Your task to perform on an android device: Add "logitech g933" to the cart on bestbuy, then select checkout. Image 0: 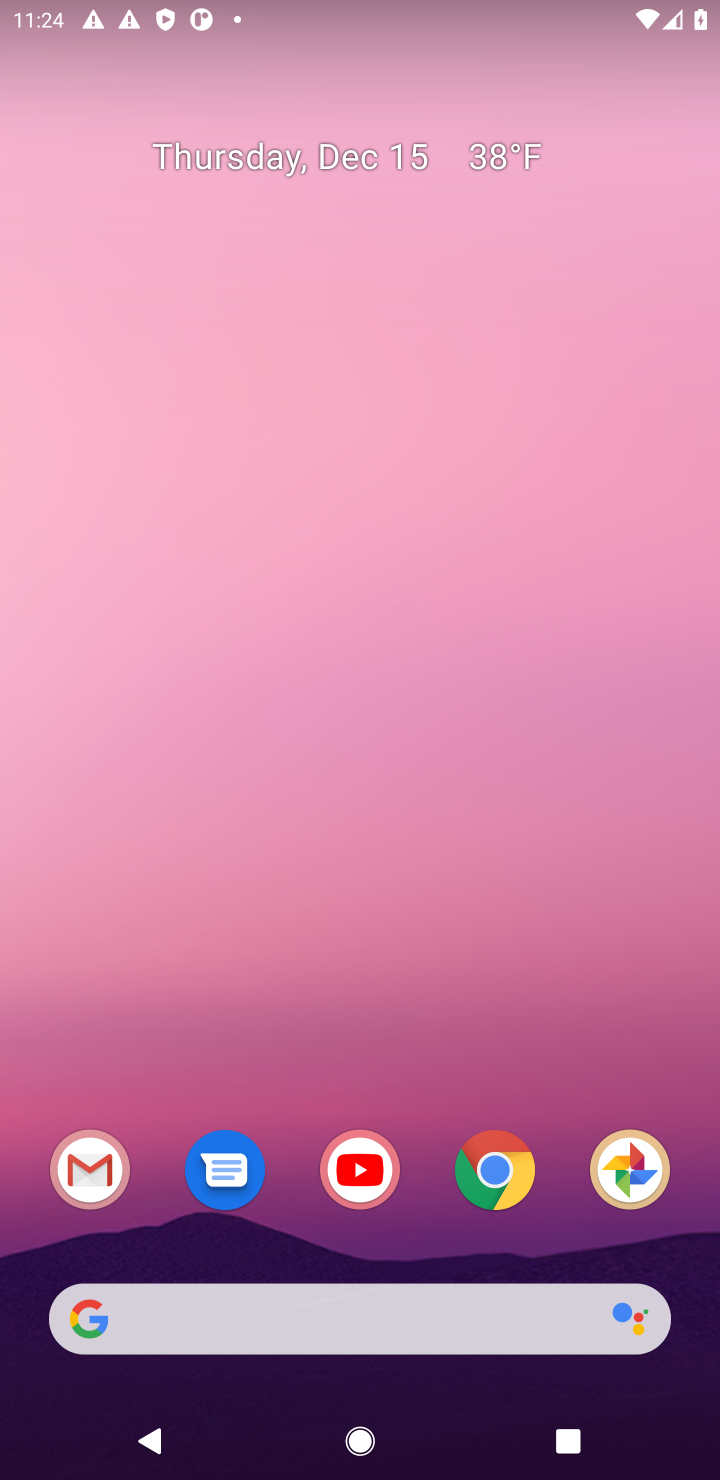
Step 0: click (512, 1182)
Your task to perform on an android device: Add "logitech g933" to the cart on bestbuy, then select checkout. Image 1: 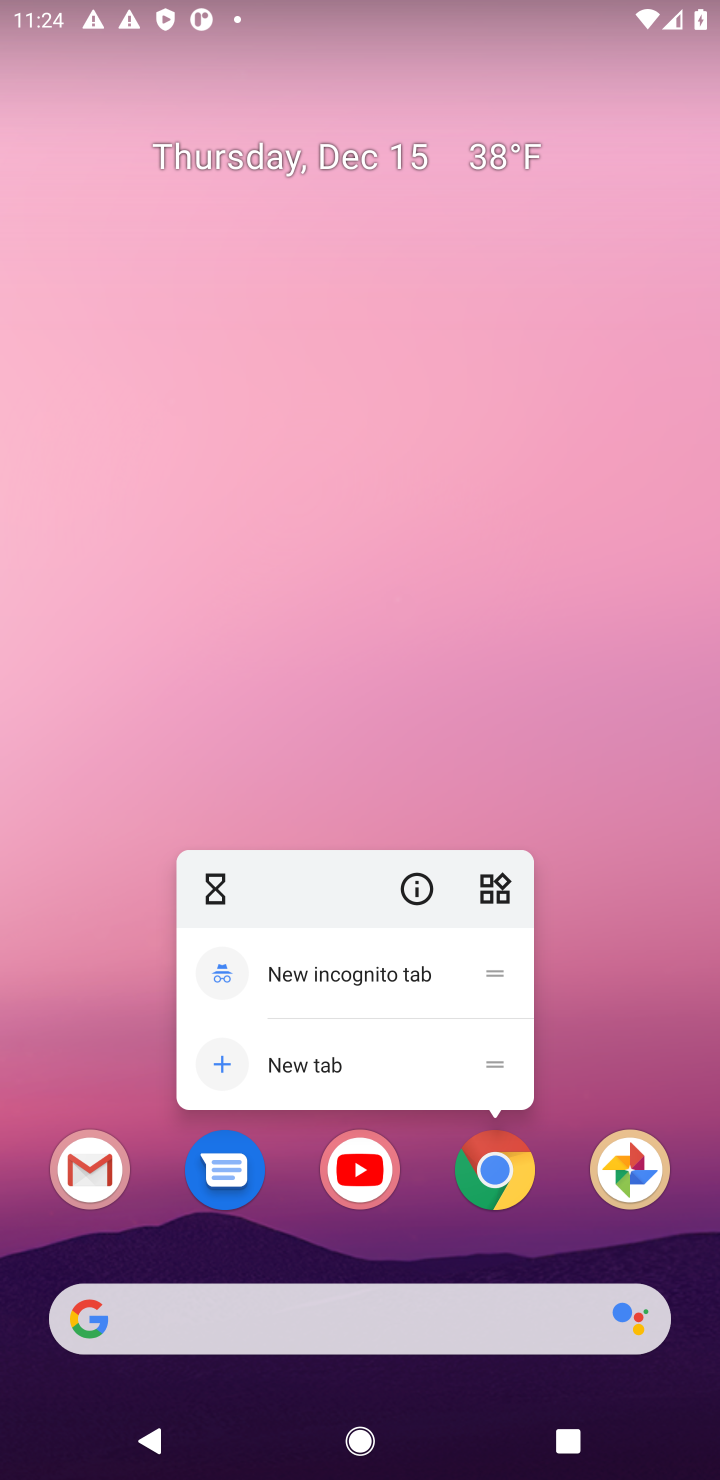
Step 1: click (495, 1171)
Your task to perform on an android device: Add "logitech g933" to the cart on bestbuy, then select checkout. Image 2: 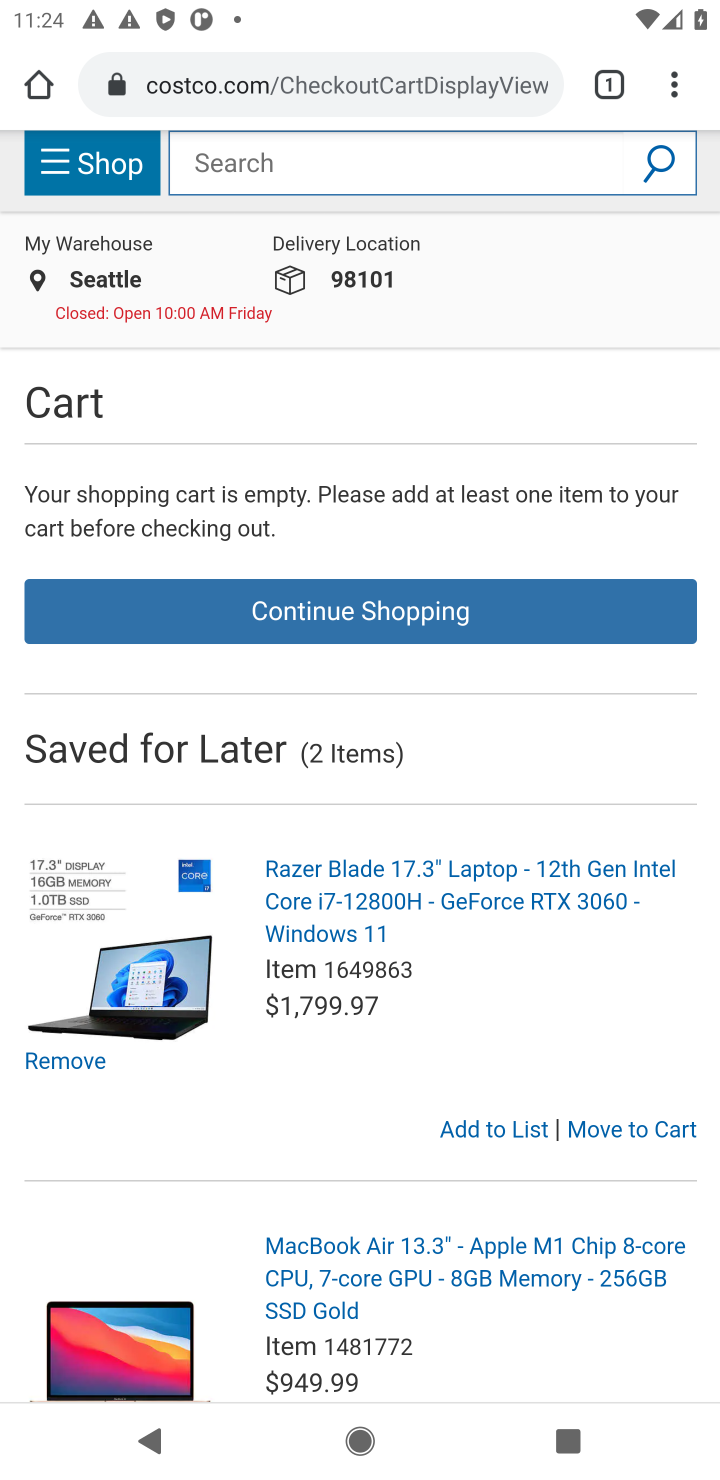
Step 2: click (269, 82)
Your task to perform on an android device: Add "logitech g933" to the cart on bestbuy, then select checkout. Image 3: 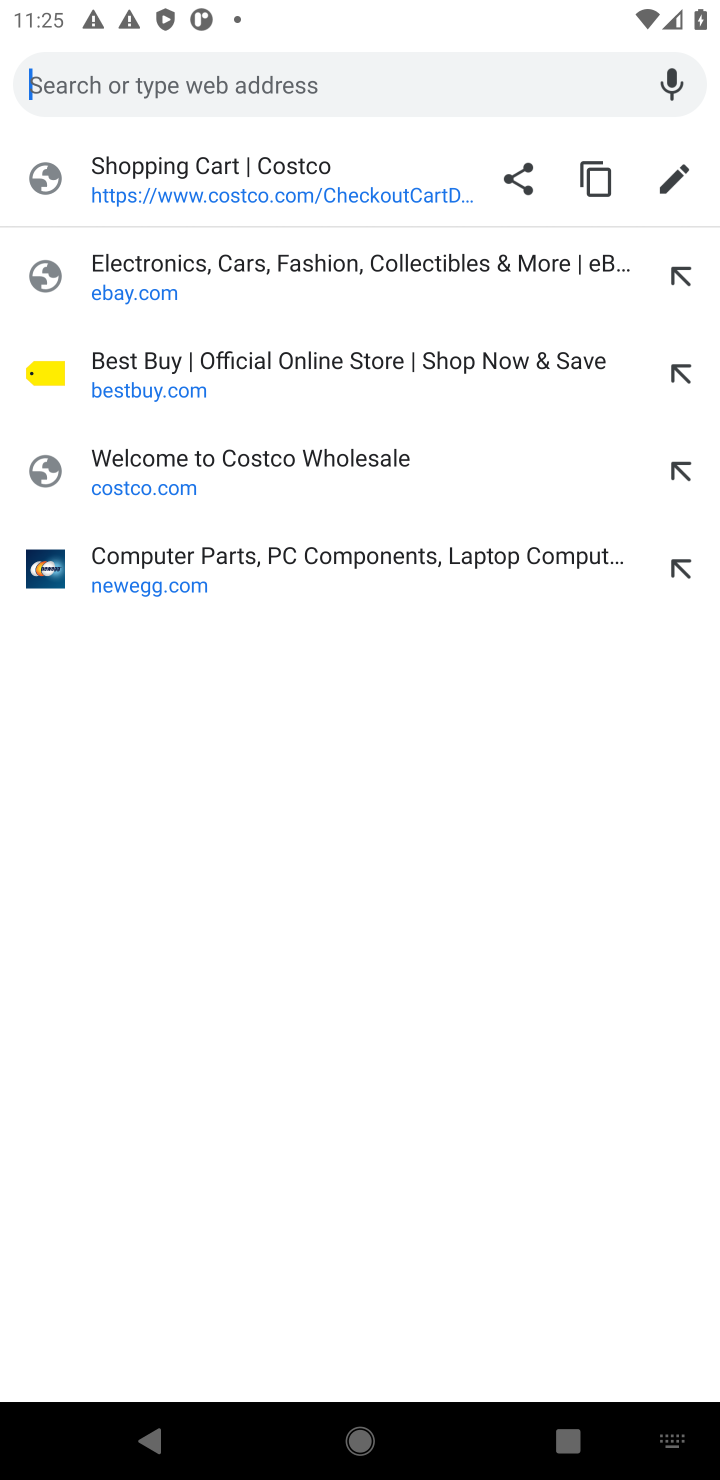
Step 3: click (96, 371)
Your task to perform on an android device: Add "logitech g933" to the cart on bestbuy, then select checkout. Image 4: 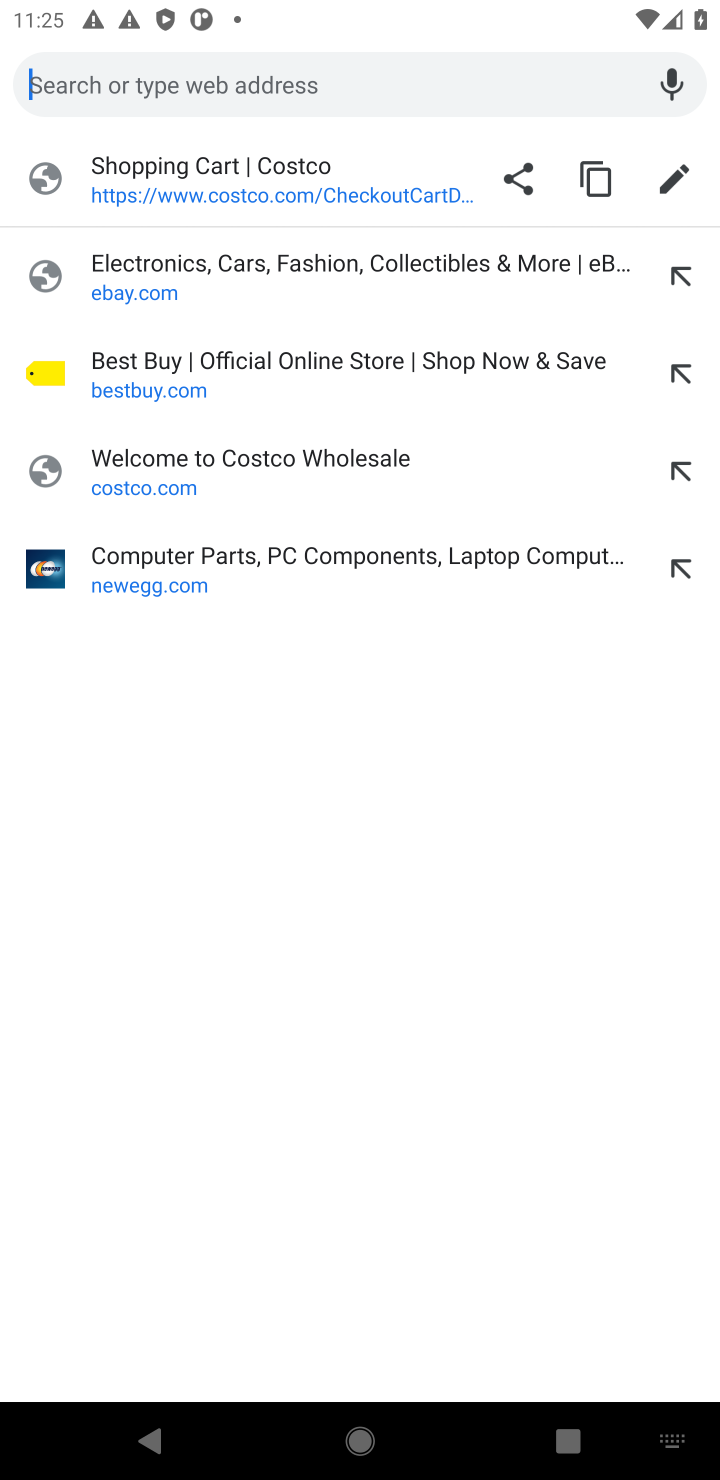
Step 4: click (118, 377)
Your task to perform on an android device: Add "logitech g933" to the cart on bestbuy, then select checkout. Image 5: 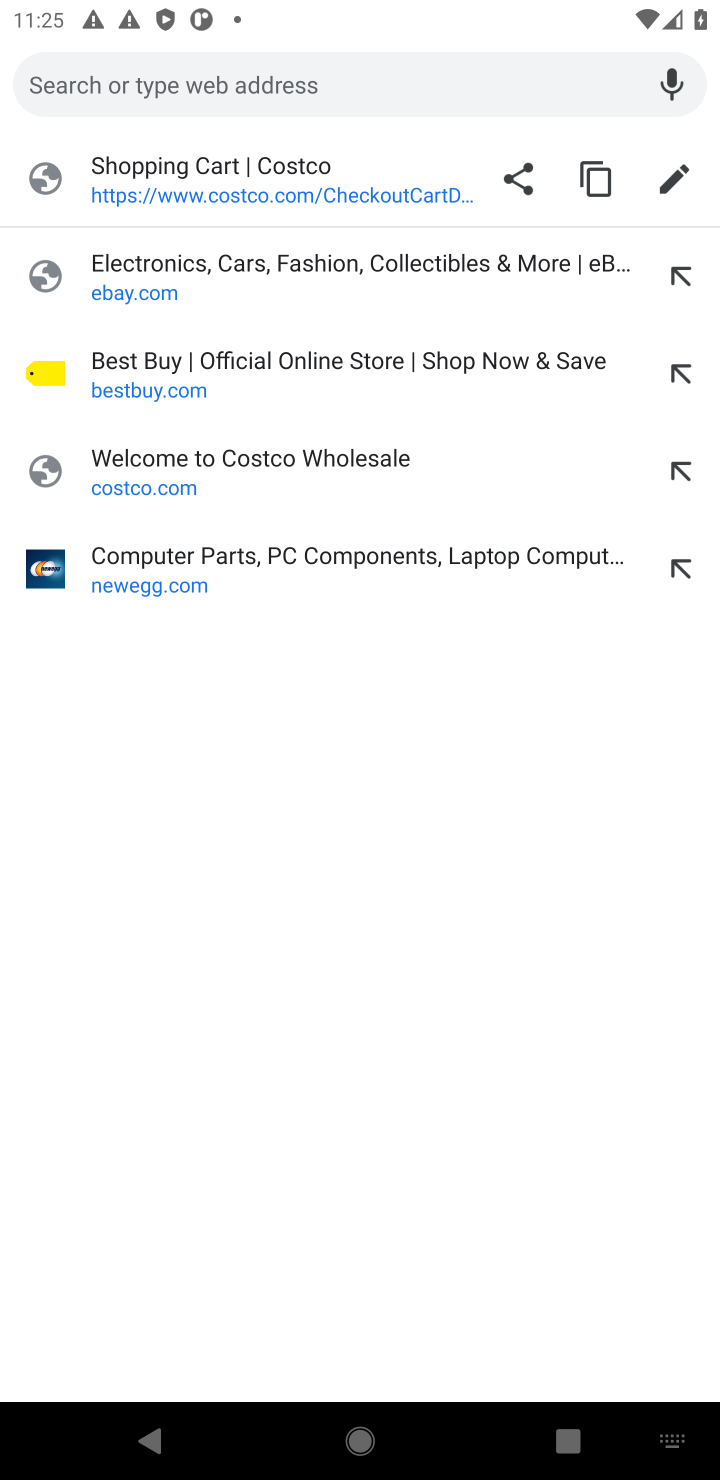
Step 5: click (118, 377)
Your task to perform on an android device: Add "logitech g933" to the cart on bestbuy, then select checkout. Image 6: 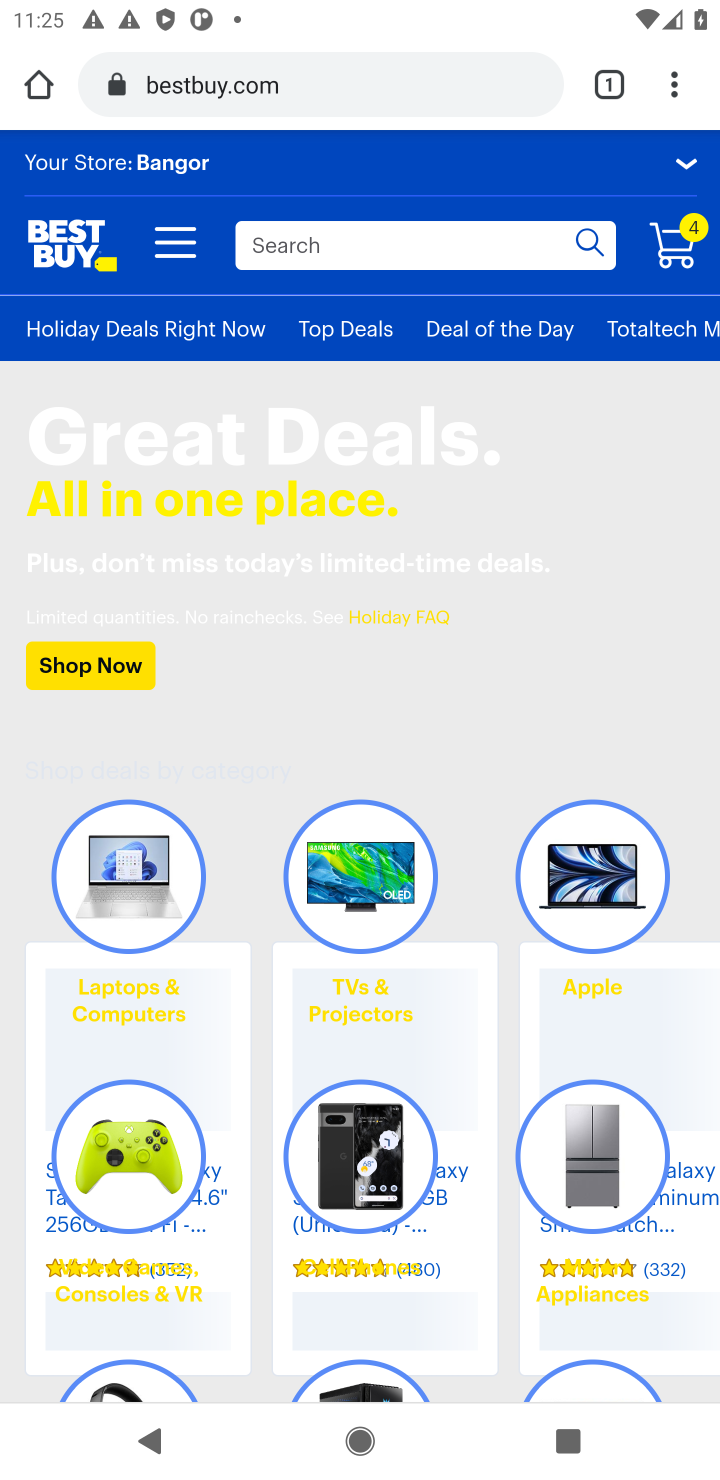
Step 6: click (303, 250)
Your task to perform on an android device: Add "logitech g933" to the cart on bestbuy, then select checkout. Image 7: 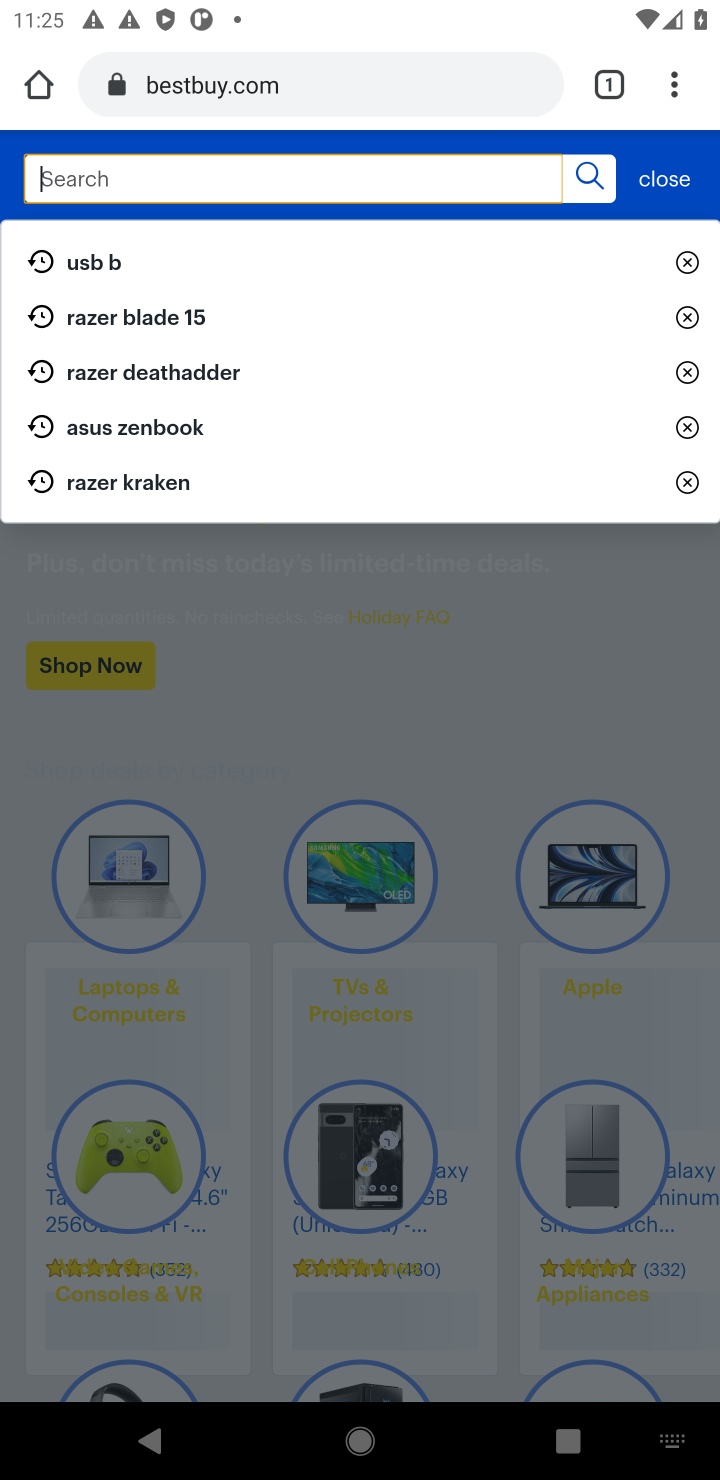
Step 7: type "logitech g933"
Your task to perform on an android device: Add "logitech g933" to the cart on bestbuy, then select checkout. Image 8: 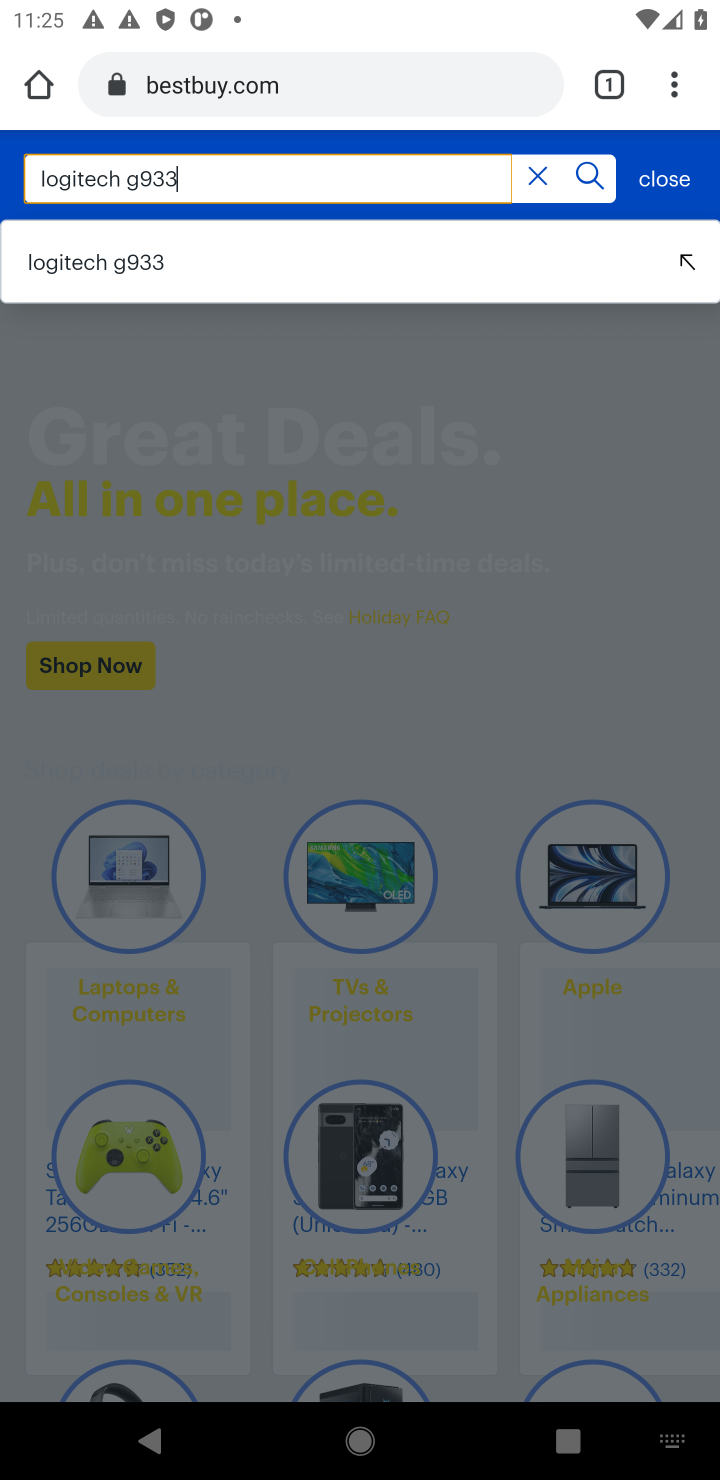
Step 8: click (91, 257)
Your task to perform on an android device: Add "logitech g933" to the cart on bestbuy, then select checkout. Image 9: 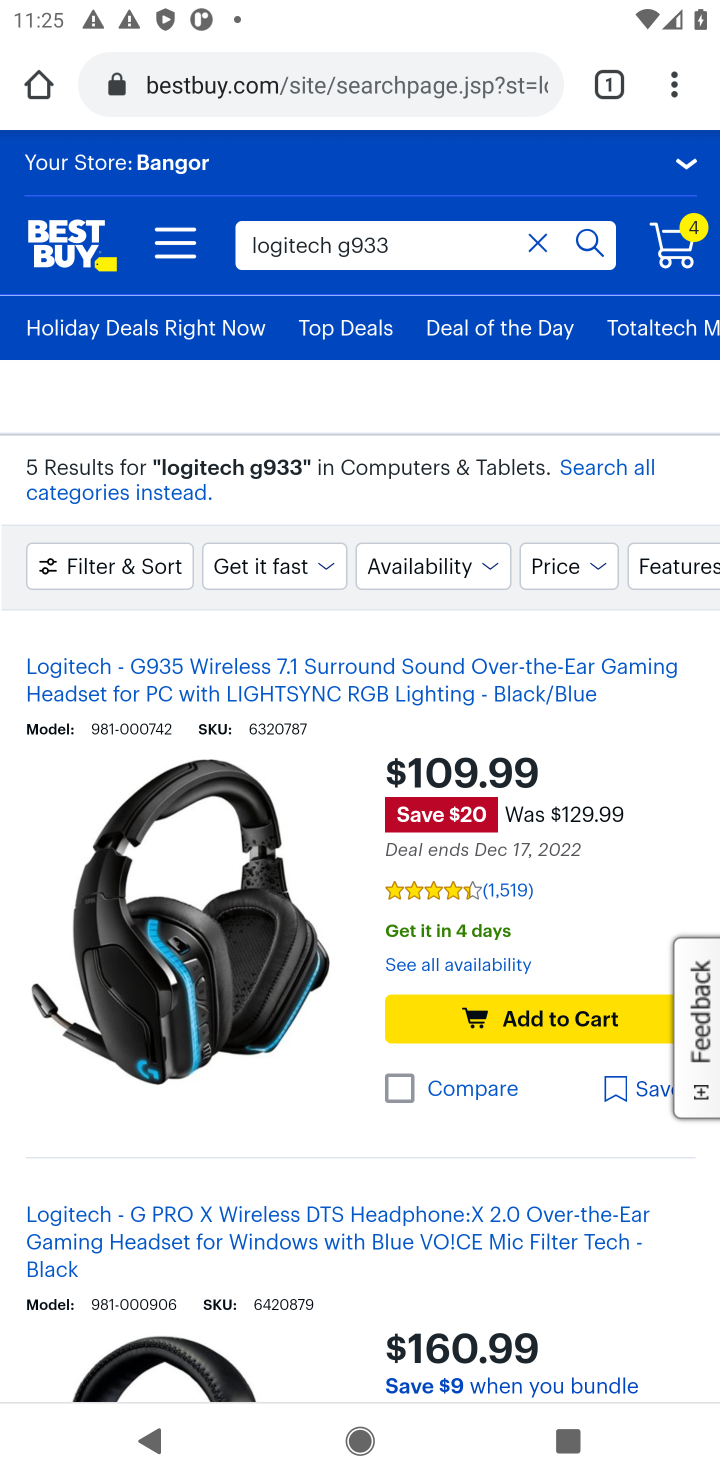
Step 9: task complete